Your task to perform on an android device: check android version Image 0: 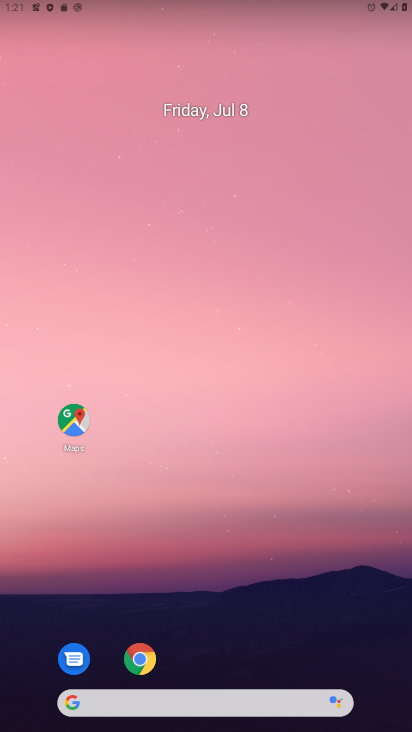
Step 0: drag from (252, 614) to (178, 153)
Your task to perform on an android device: check android version Image 1: 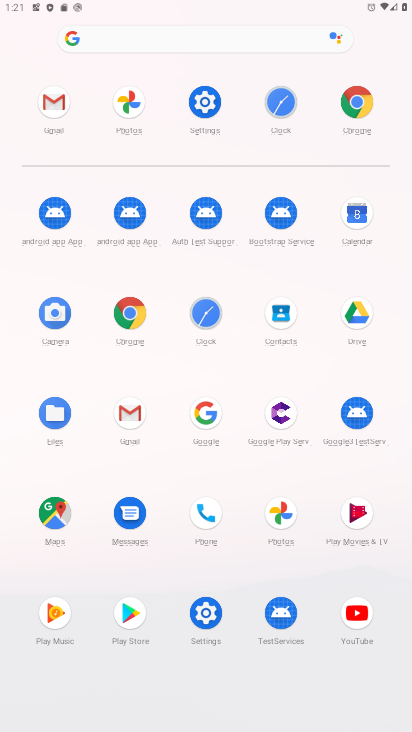
Step 1: click (201, 100)
Your task to perform on an android device: check android version Image 2: 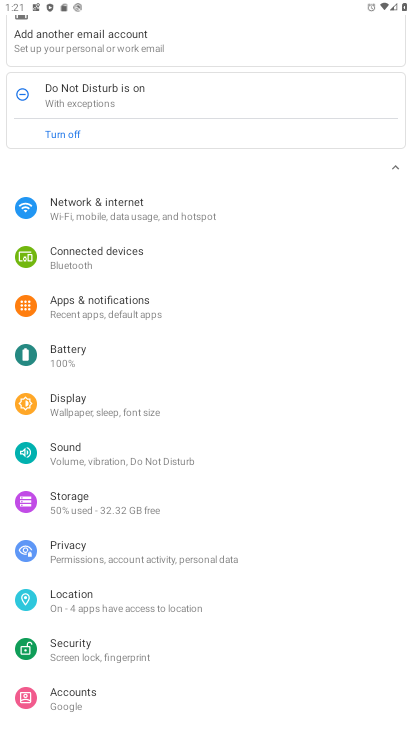
Step 2: drag from (168, 647) to (148, 258)
Your task to perform on an android device: check android version Image 3: 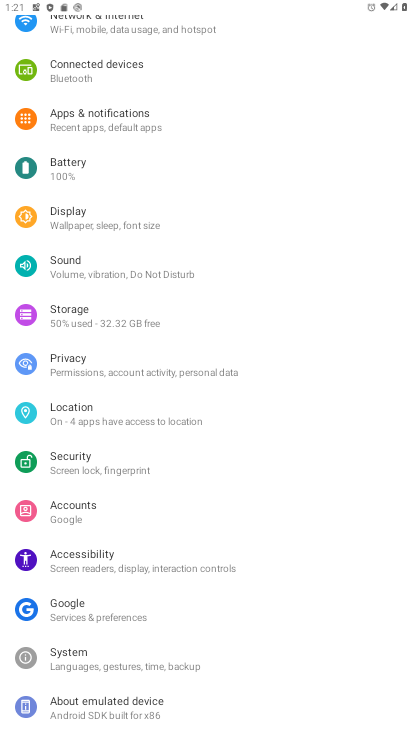
Step 3: drag from (277, 641) to (277, 338)
Your task to perform on an android device: check android version Image 4: 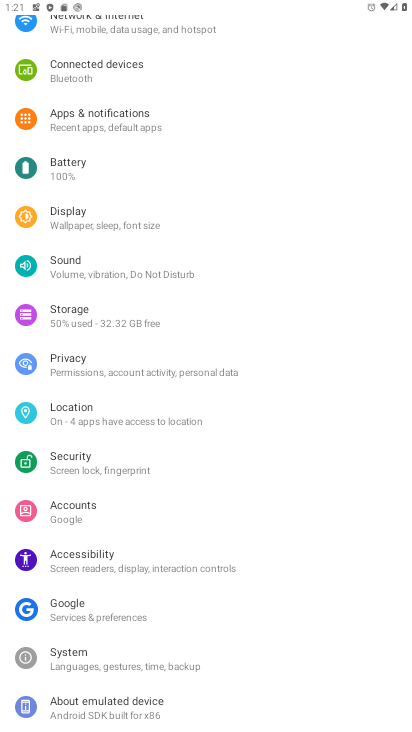
Step 4: click (143, 700)
Your task to perform on an android device: check android version Image 5: 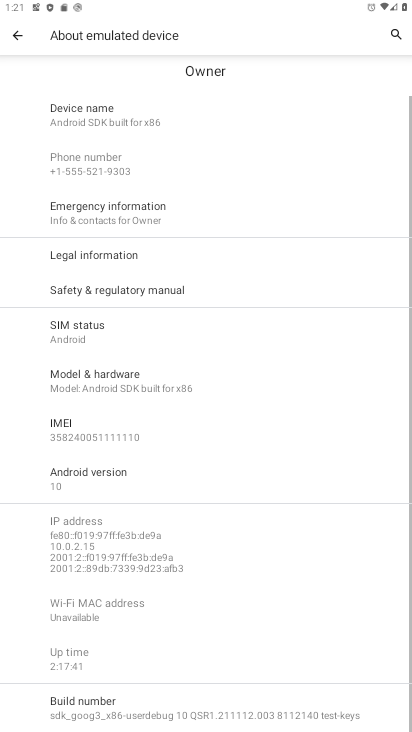
Step 5: task complete